Your task to perform on an android device: Open wifi settings Image 0: 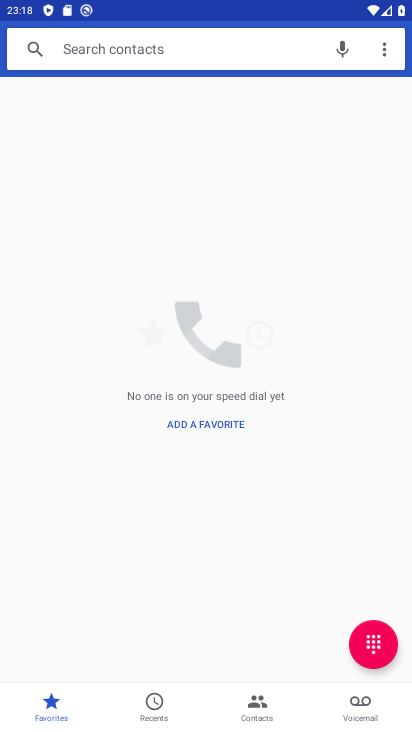
Step 0: press home button
Your task to perform on an android device: Open wifi settings Image 1: 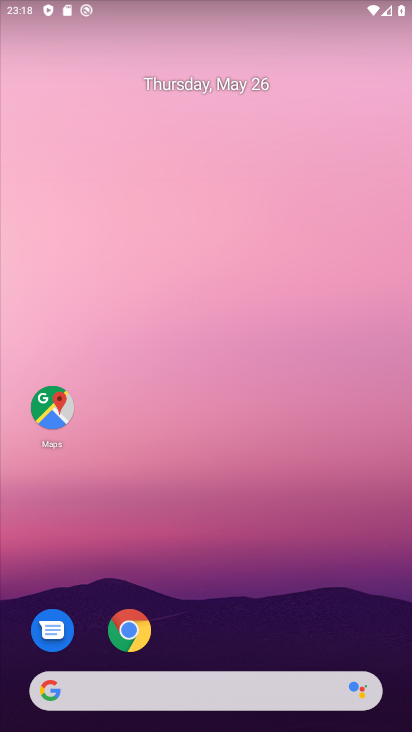
Step 1: drag from (264, 647) to (190, 234)
Your task to perform on an android device: Open wifi settings Image 2: 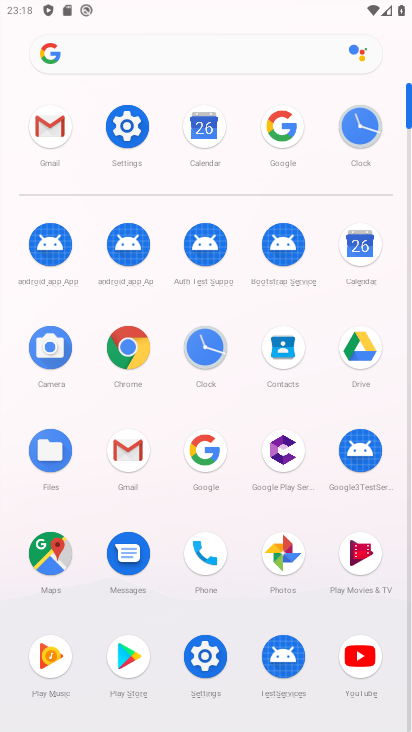
Step 2: click (126, 126)
Your task to perform on an android device: Open wifi settings Image 3: 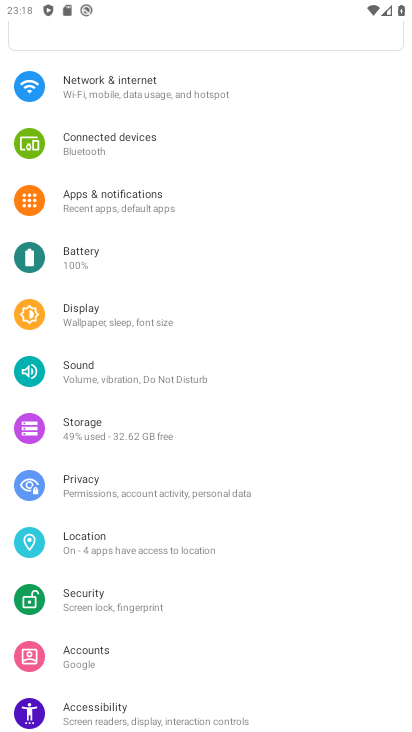
Step 3: click (101, 92)
Your task to perform on an android device: Open wifi settings Image 4: 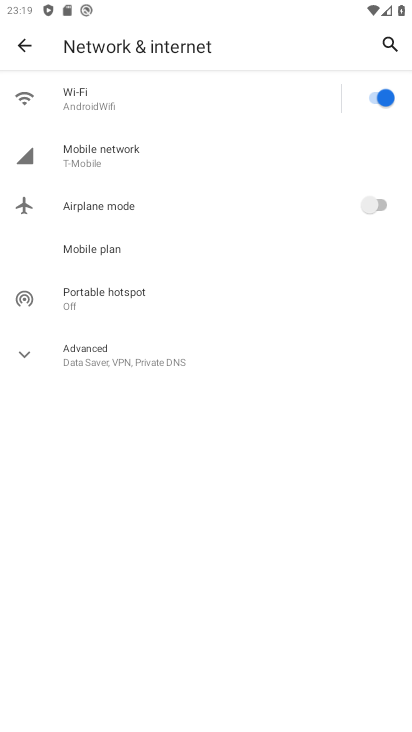
Step 4: click (100, 107)
Your task to perform on an android device: Open wifi settings Image 5: 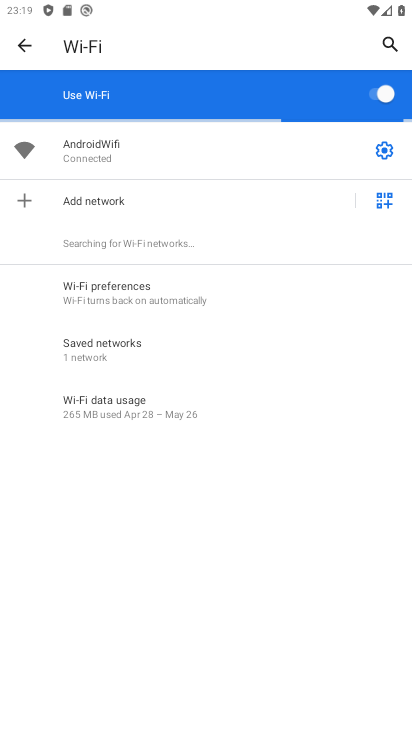
Step 5: click (386, 148)
Your task to perform on an android device: Open wifi settings Image 6: 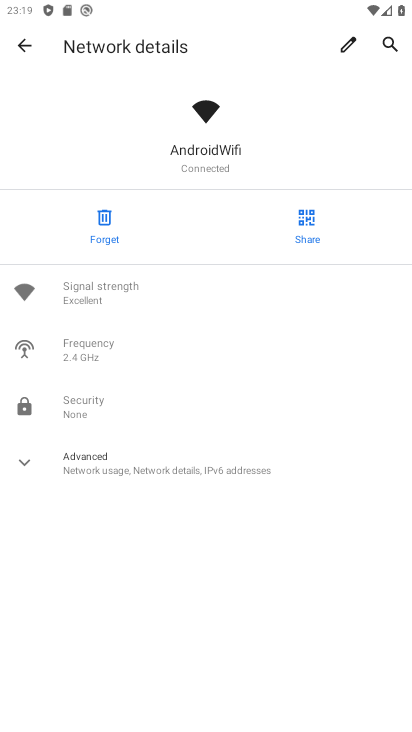
Step 6: task complete